Your task to perform on an android device: open app "Facebook Messenger" Image 0: 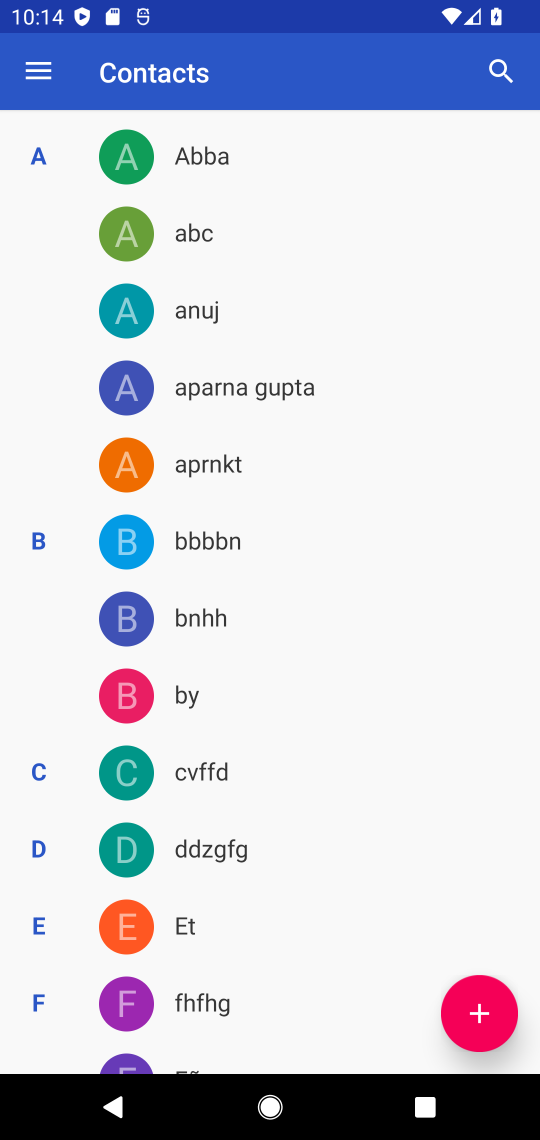
Step 0: press home button
Your task to perform on an android device: open app "Facebook Messenger" Image 1: 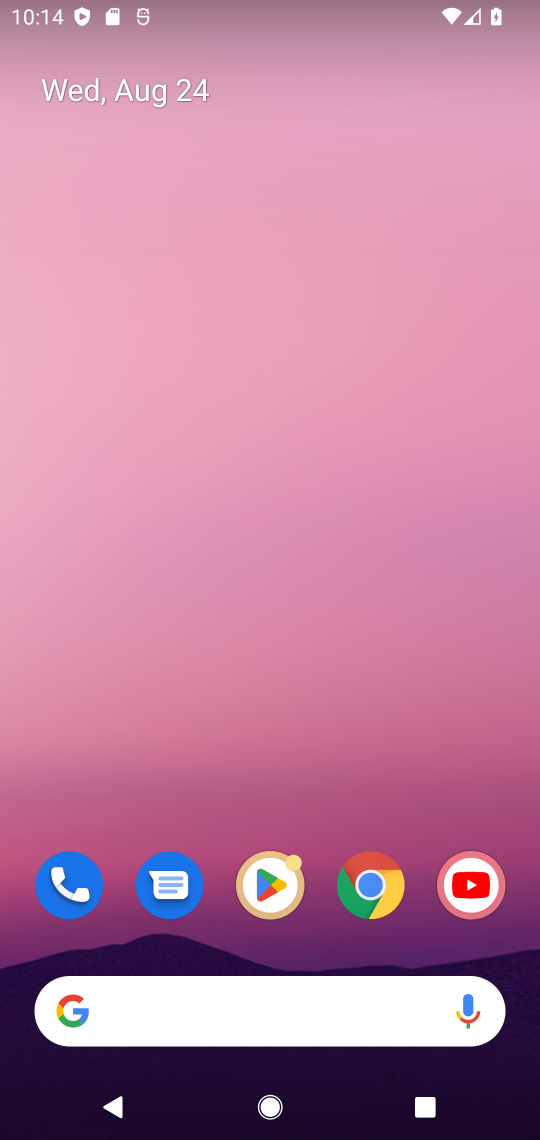
Step 1: click (274, 887)
Your task to perform on an android device: open app "Facebook Messenger" Image 2: 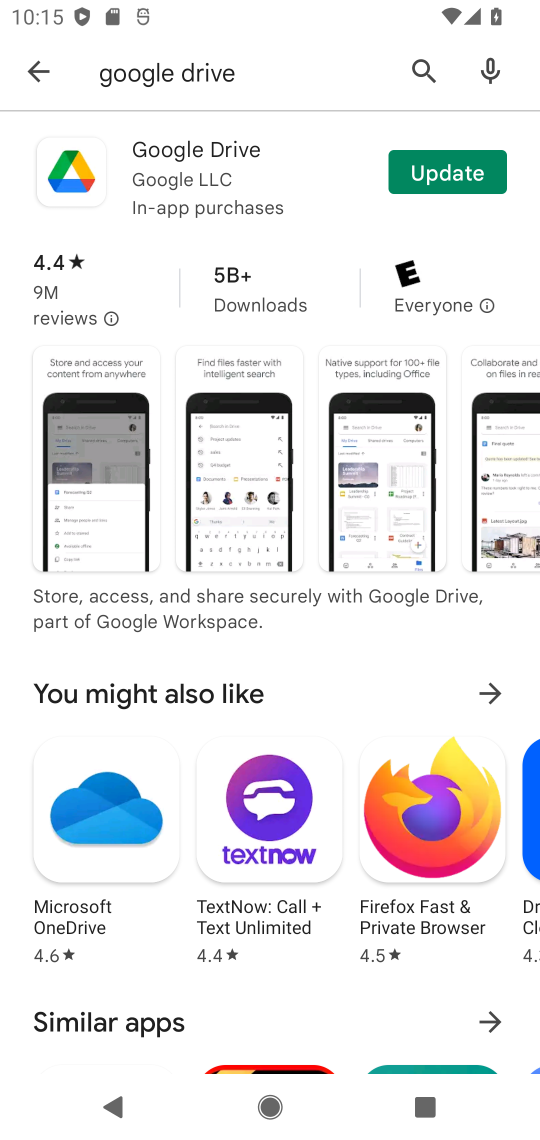
Step 2: click (403, 60)
Your task to perform on an android device: open app "Facebook Messenger" Image 3: 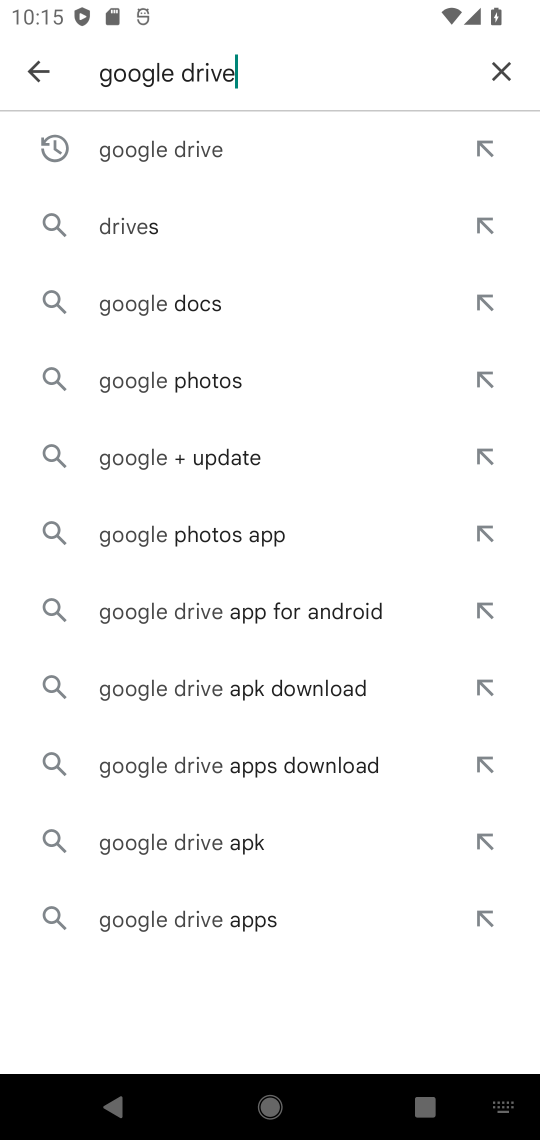
Step 3: click (493, 77)
Your task to perform on an android device: open app "Facebook Messenger" Image 4: 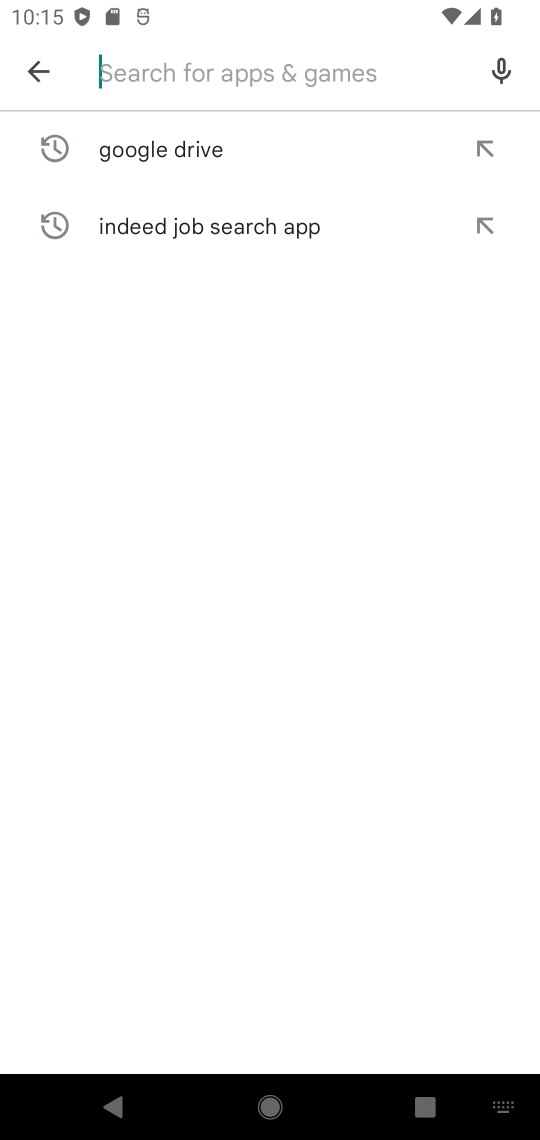
Step 4: type "Facebook Messenger"
Your task to perform on an android device: open app "Facebook Messenger" Image 5: 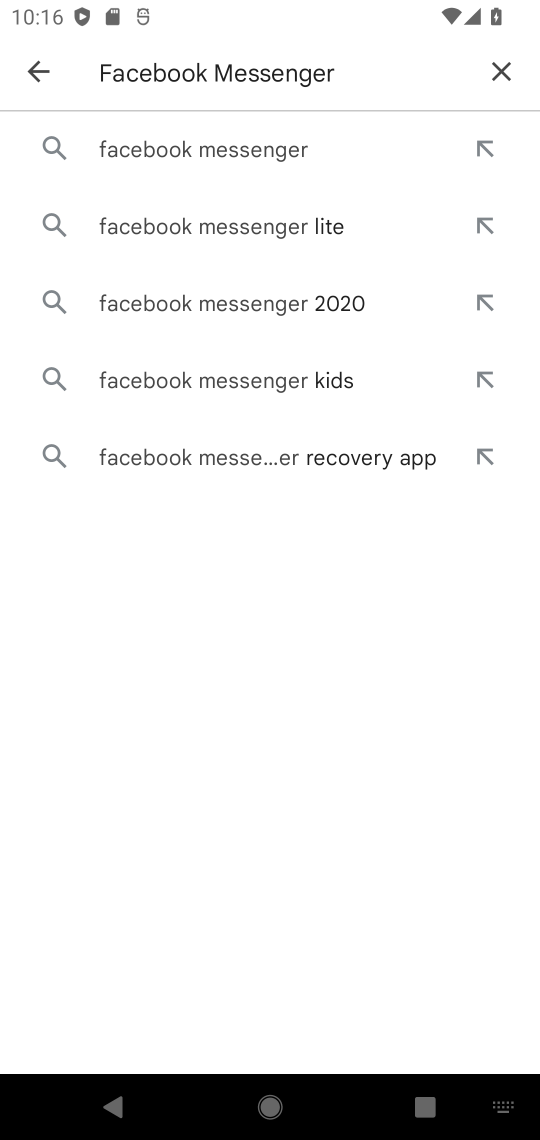
Step 5: click (313, 147)
Your task to perform on an android device: open app "Facebook Messenger" Image 6: 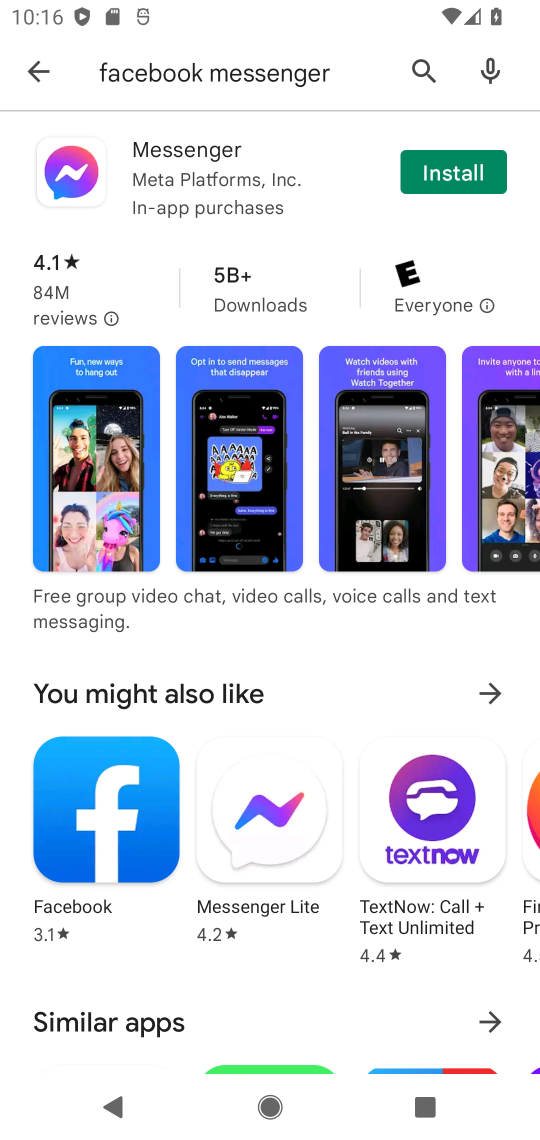
Step 6: task complete